Your task to perform on an android device: set the stopwatch Image 0: 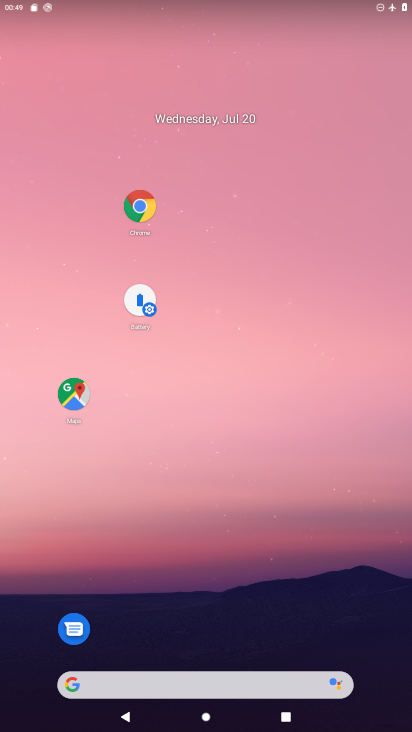
Step 0: drag from (223, 594) to (300, 3)
Your task to perform on an android device: set the stopwatch Image 1: 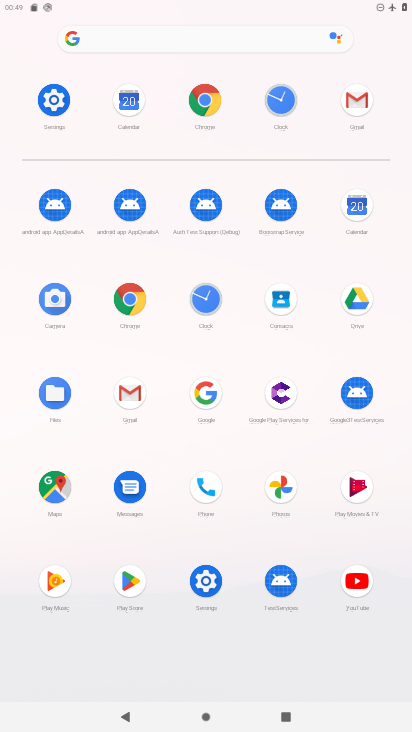
Step 1: click (212, 296)
Your task to perform on an android device: set the stopwatch Image 2: 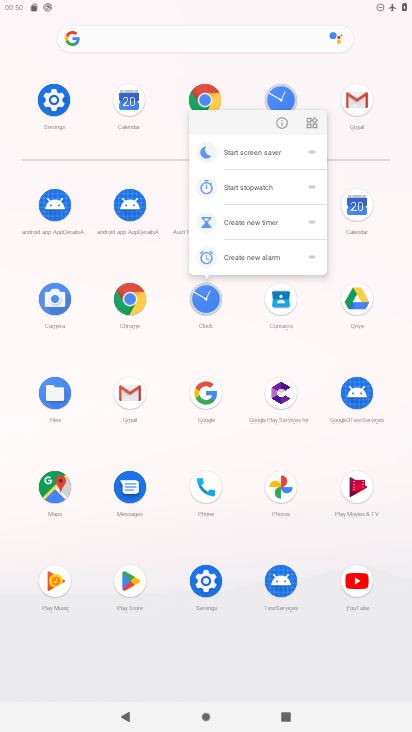
Step 2: click (282, 115)
Your task to perform on an android device: set the stopwatch Image 3: 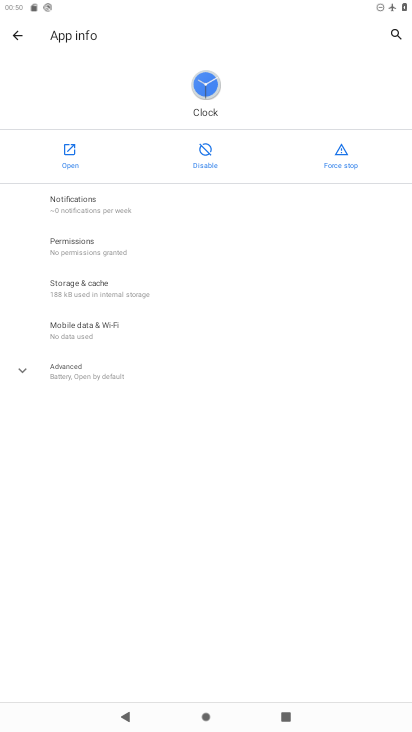
Step 3: click (61, 154)
Your task to perform on an android device: set the stopwatch Image 4: 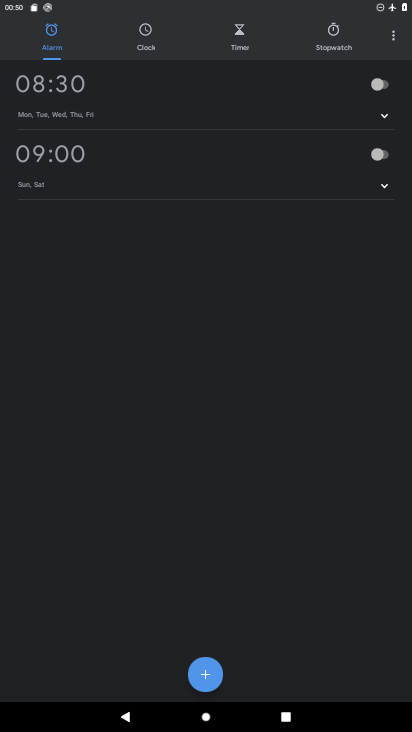
Step 4: click (336, 34)
Your task to perform on an android device: set the stopwatch Image 5: 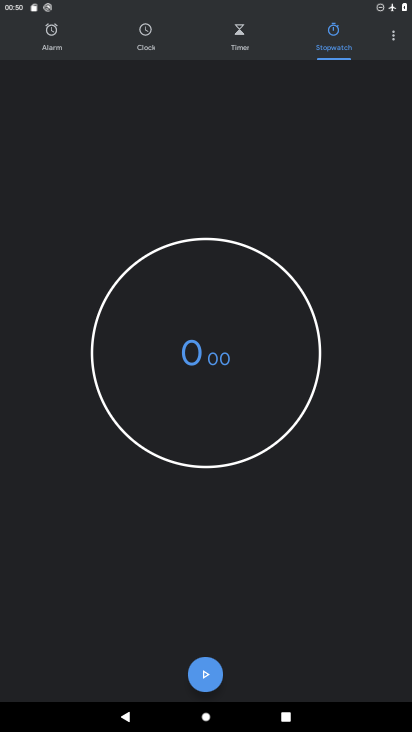
Step 5: click (197, 671)
Your task to perform on an android device: set the stopwatch Image 6: 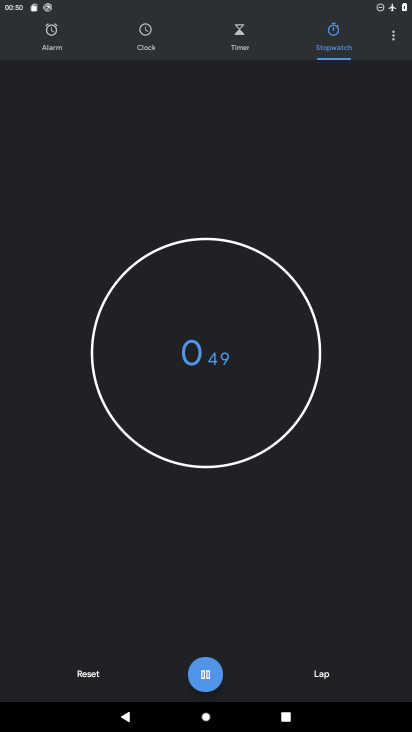
Step 6: task complete